Your task to perform on an android device: refresh tabs in the chrome app Image 0: 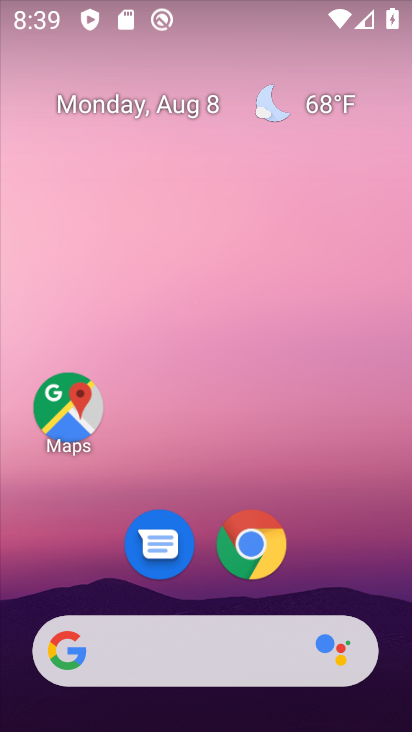
Step 0: press home button
Your task to perform on an android device: refresh tabs in the chrome app Image 1: 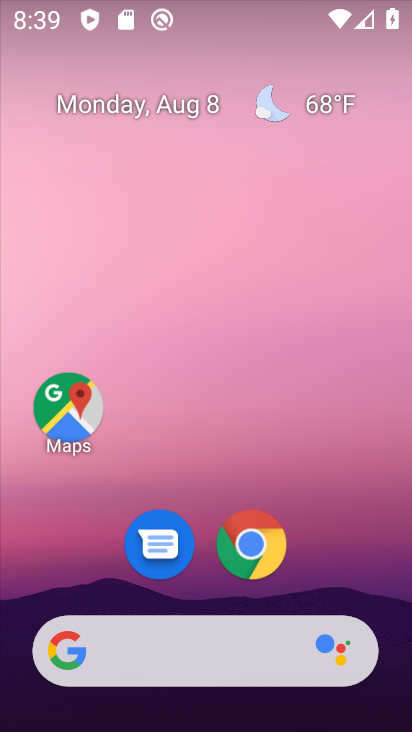
Step 1: drag from (324, 581) to (313, 30)
Your task to perform on an android device: refresh tabs in the chrome app Image 2: 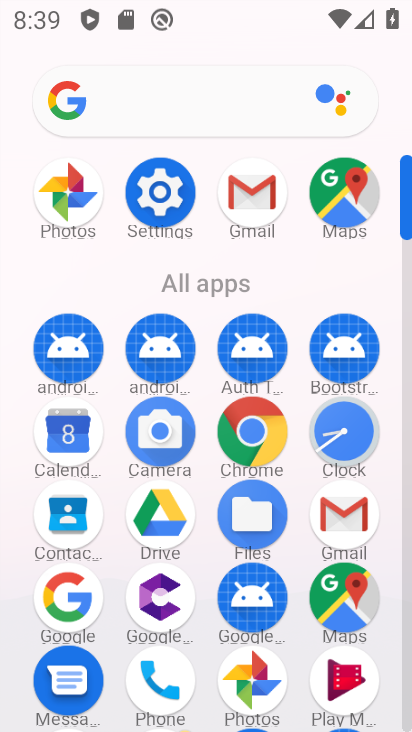
Step 2: click (248, 435)
Your task to perform on an android device: refresh tabs in the chrome app Image 3: 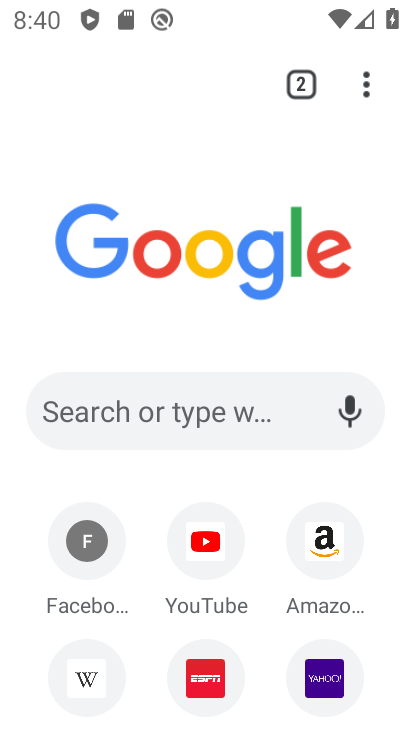
Step 3: click (365, 86)
Your task to perform on an android device: refresh tabs in the chrome app Image 4: 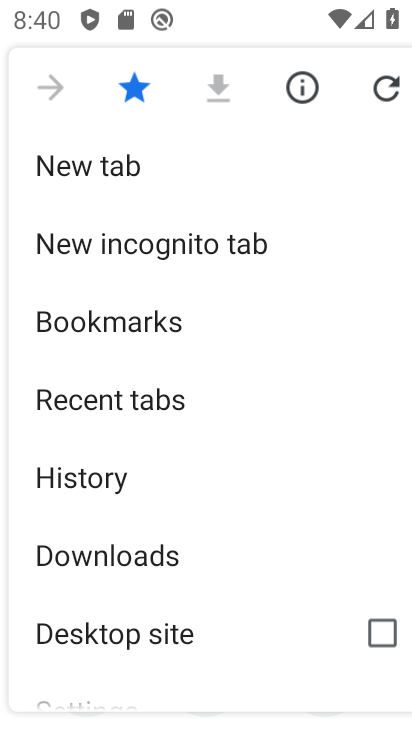
Step 4: click (390, 88)
Your task to perform on an android device: refresh tabs in the chrome app Image 5: 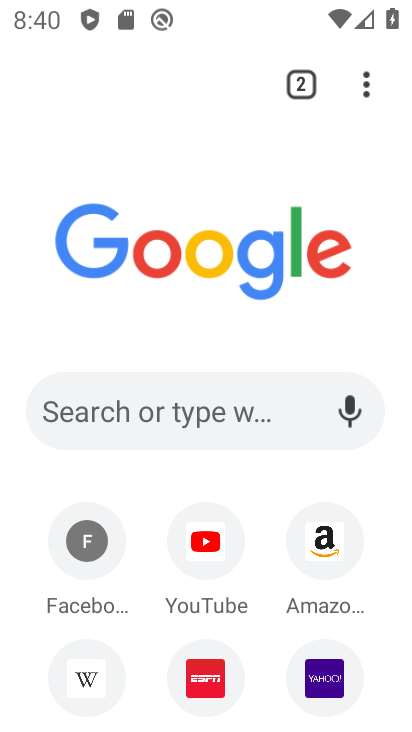
Step 5: task complete